Your task to perform on an android device: turn on javascript in the chrome app Image 0: 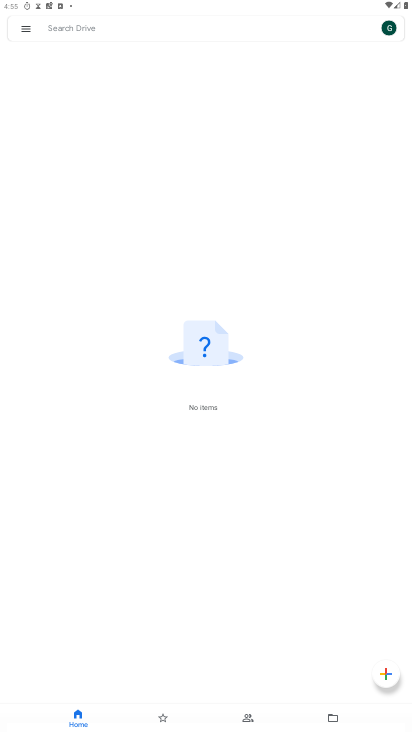
Step 0: press home button
Your task to perform on an android device: turn on javascript in the chrome app Image 1: 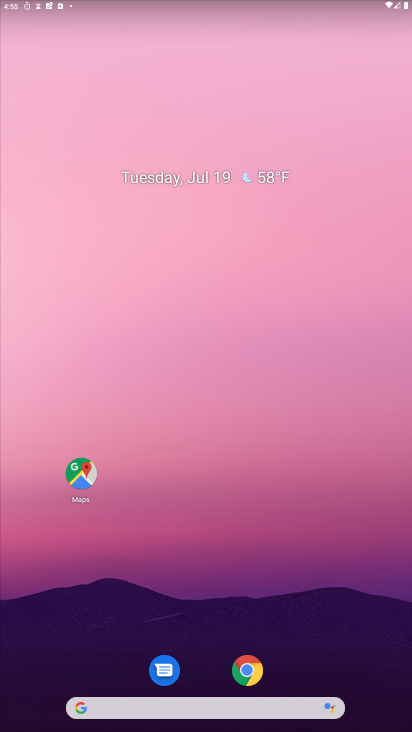
Step 1: drag from (298, 707) to (411, 71)
Your task to perform on an android device: turn on javascript in the chrome app Image 2: 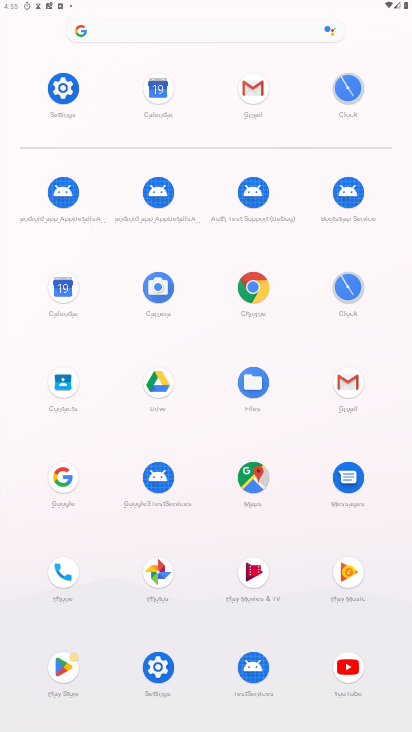
Step 2: click (261, 282)
Your task to perform on an android device: turn on javascript in the chrome app Image 3: 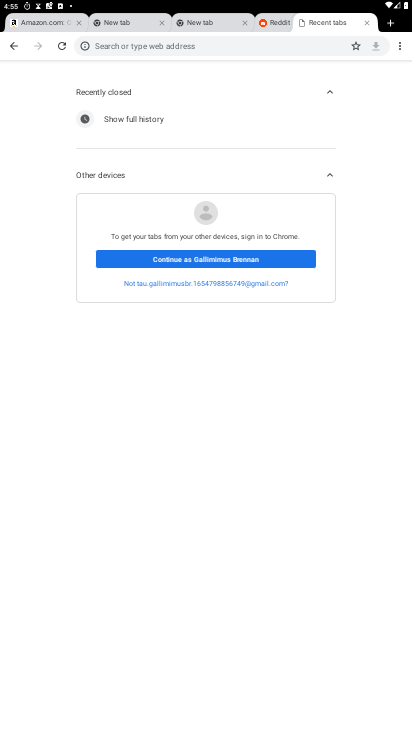
Step 3: drag from (398, 46) to (324, 279)
Your task to perform on an android device: turn on javascript in the chrome app Image 4: 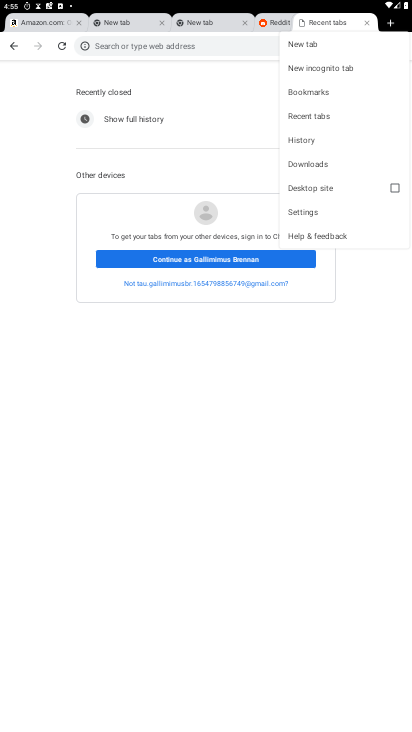
Step 4: click (334, 223)
Your task to perform on an android device: turn on javascript in the chrome app Image 5: 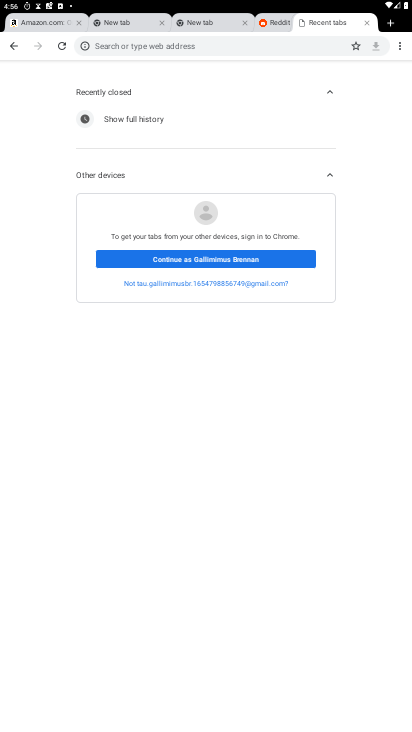
Step 5: drag from (400, 46) to (320, 212)
Your task to perform on an android device: turn on javascript in the chrome app Image 6: 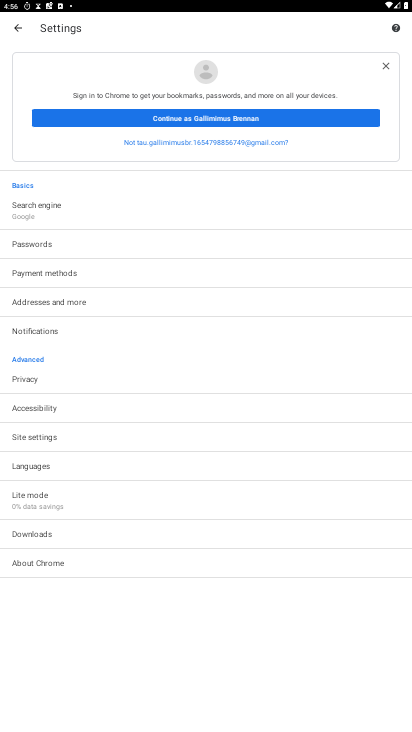
Step 6: click (45, 432)
Your task to perform on an android device: turn on javascript in the chrome app Image 7: 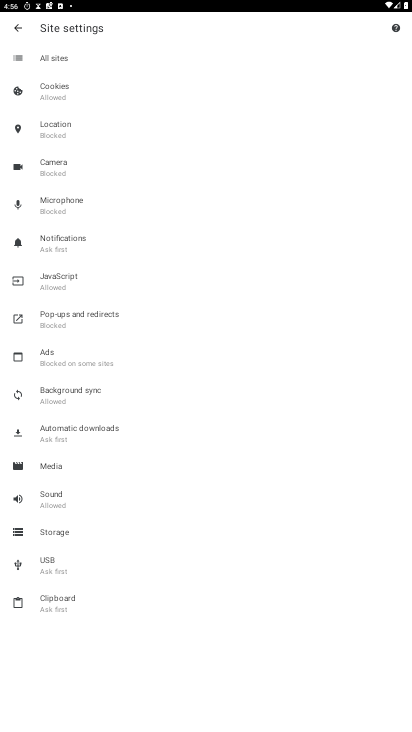
Step 7: click (77, 274)
Your task to perform on an android device: turn on javascript in the chrome app Image 8: 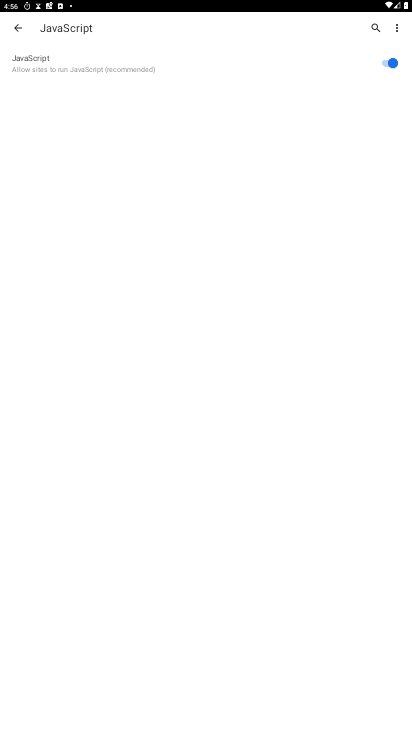
Step 8: task complete